Your task to perform on an android device: Open sound settings Image 0: 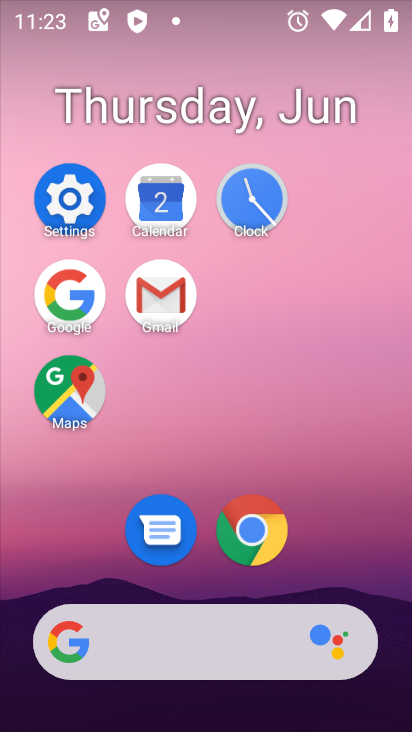
Step 0: click (77, 192)
Your task to perform on an android device: Open sound settings Image 1: 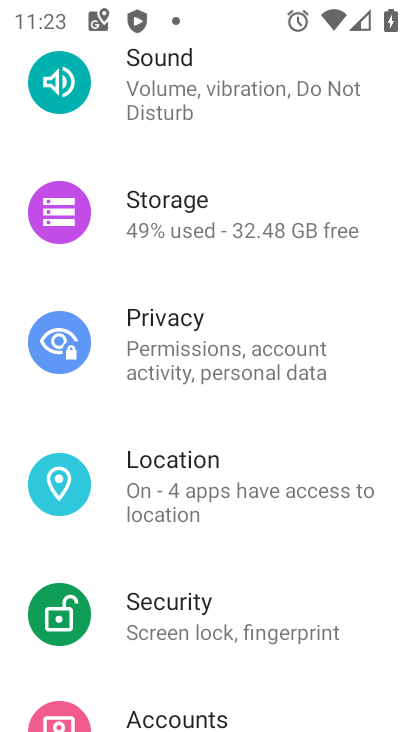
Step 1: drag from (330, 228) to (333, 464)
Your task to perform on an android device: Open sound settings Image 2: 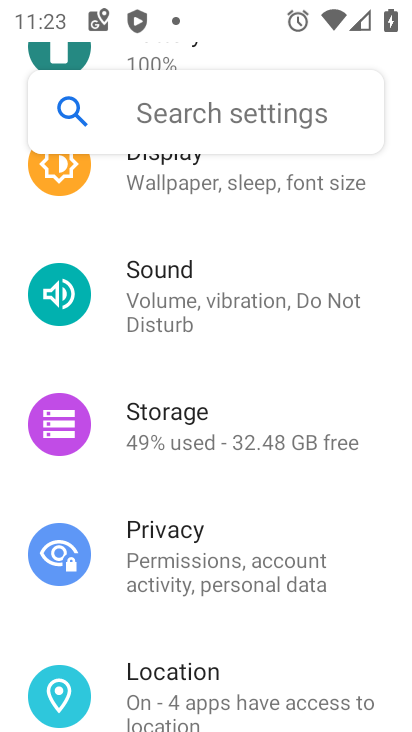
Step 2: click (222, 307)
Your task to perform on an android device: Open sound settings Image 3: 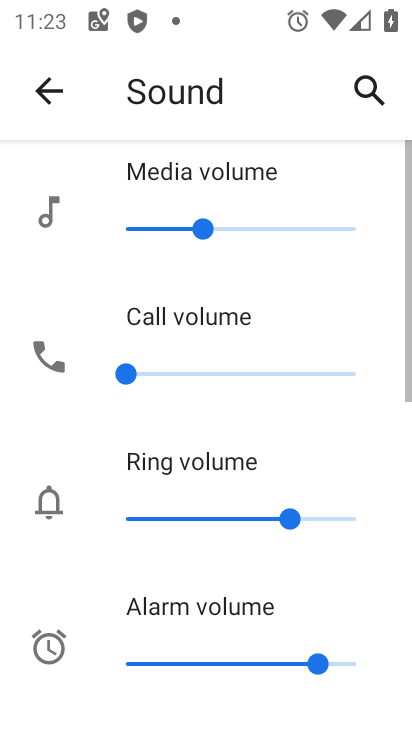
Step 3: task complete